Your task to perform on an android device: Open Google Maps Image 0: 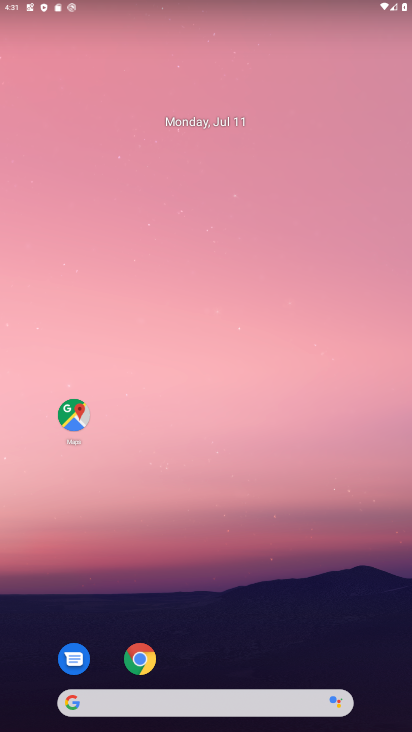
Step 0: click (70, 414)
Your task to perform on an android device: Open Google Maps Image 1: 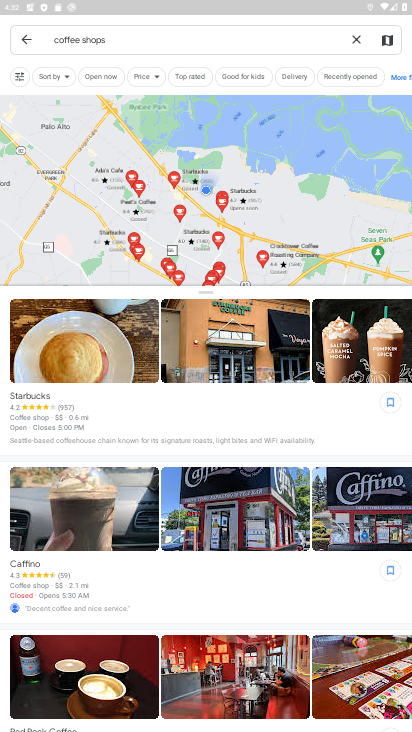
Step 1: task complete